Your task to perform on an android device: open the mobile data screen to see how much data has been used Image 0: 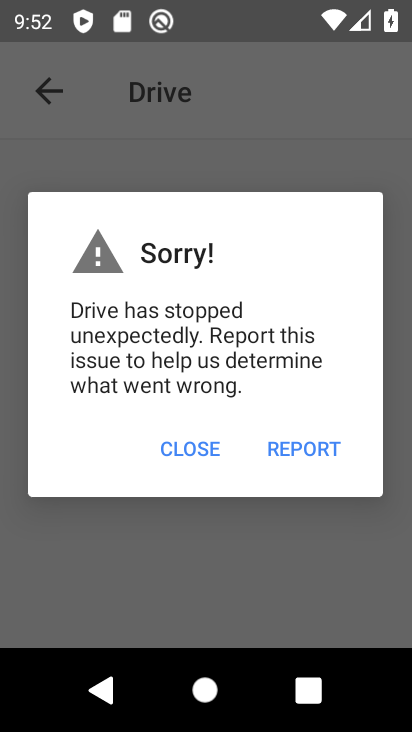
Step 0: press home button
Your task to perform on an android device: open the mobile data screen to see how much data has been used Image 1: 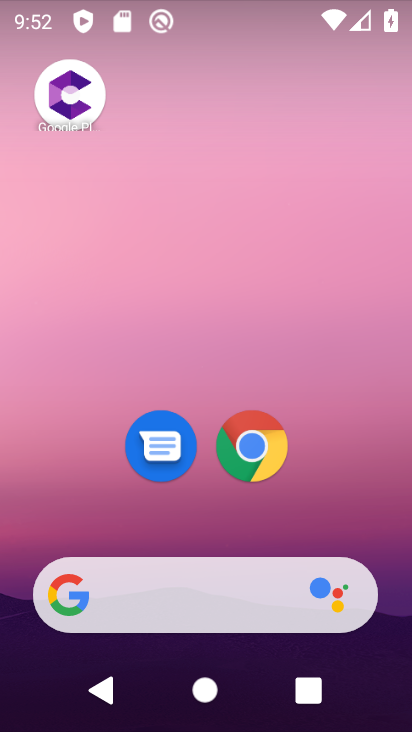
Step 1: drag from (207, 479) to (236, 79)
Your task to perform on an android device: open the mobile data screen to see how much data has been used Image 2: 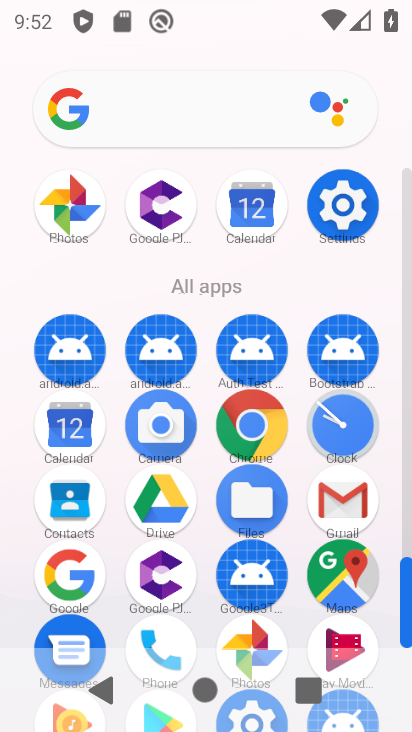
Step 2: click (334, 193)
Your task to perform on an android device: open the mobile data screen to see how much data has been used Image 3: 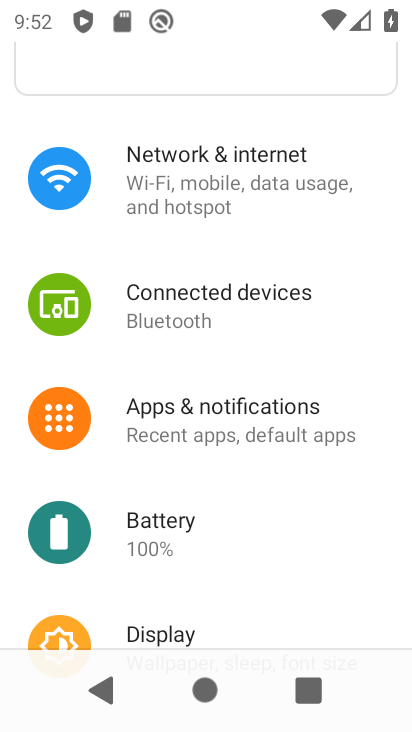
Step 3: click (208, 170)
Your task to perform on an android device: open the mobile data screen to see how much data has been used Image 4: 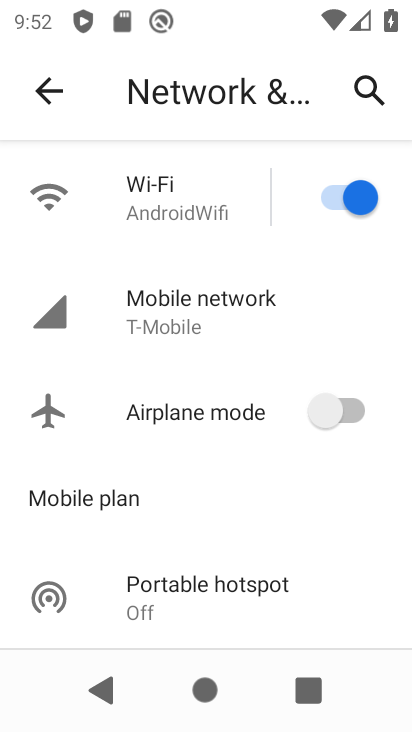
Step 4: click (196, 311)
Your task to perform on an android device: open the mobile data screen to see how much data has been used Image 5: 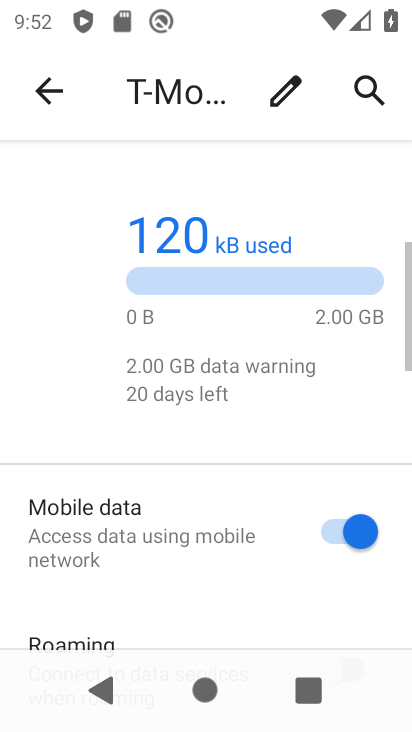
Step 5: task complete